Your task to perform on an android device: see tabs open on other devices in the chrome app Image 0: 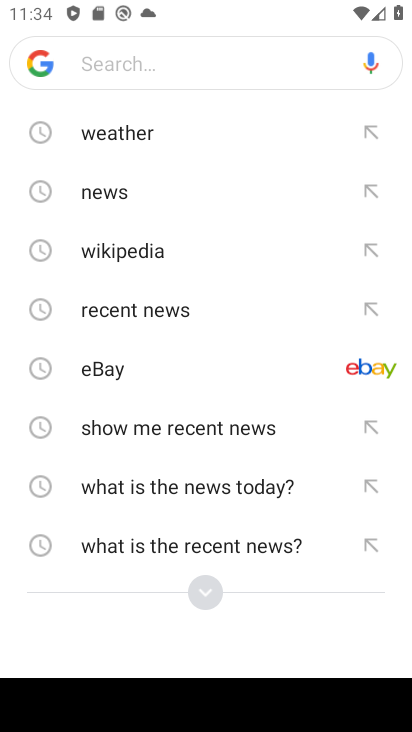
Step 0: press home button
Your task to perform on an android device: see tabs open on other devices in the chrome app Image 1: 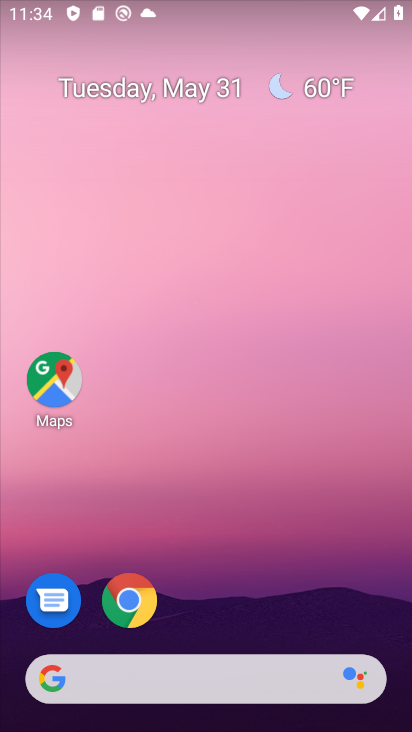
Step 1: drag from (338, 620) to (342, 90)
Your task to perform on an android device: see tabs open on other devices in the chrome app Image 2: 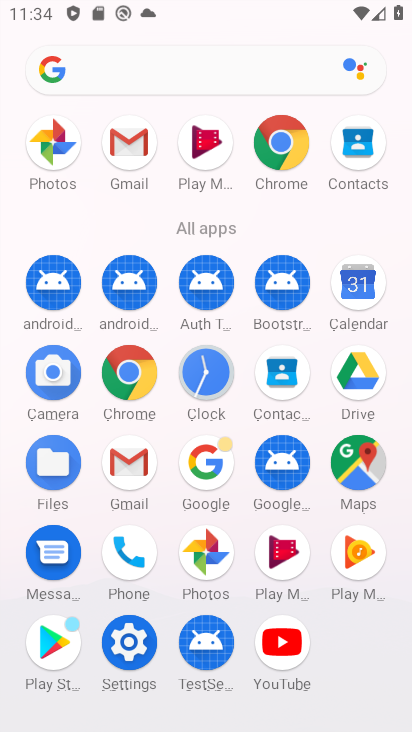
Step 2: click (143, 377)
Your task to perform on an android device: see tabs open on other devices in the chrome app Image 3: 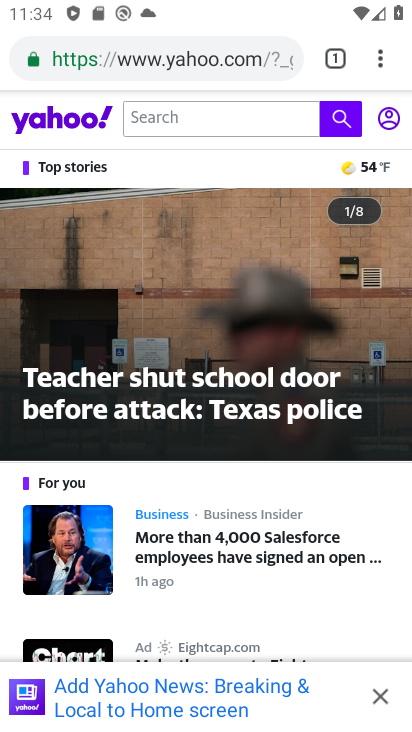
Step 3: click (381, 63)
Your task to perform on an android device: see tabs open on other devices in the chrome app Image 4: 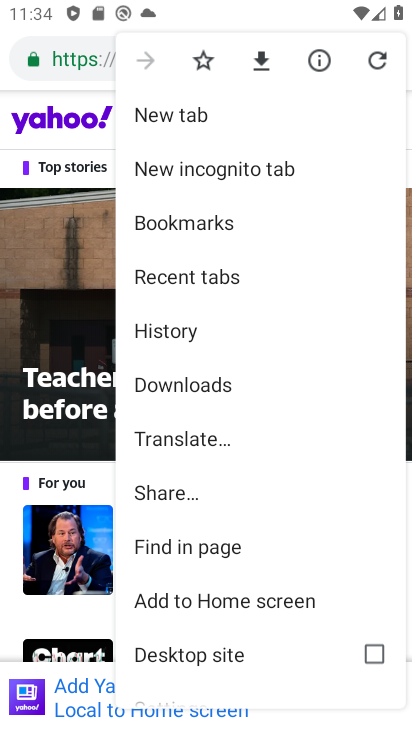
Step 4: click (248, 282)
Your task to perform on an android device: see tabs open on other devices in the chrome app Image 5: 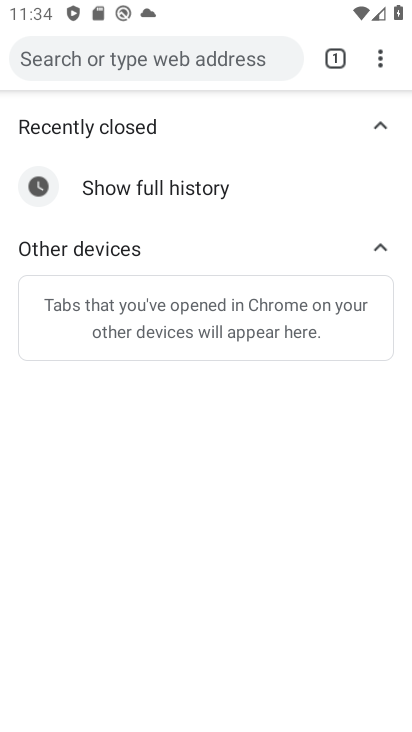
Step 5: click (340, 57)
Your task to perform on an android device: see tabs open on other devices in the chrome app Image 6: 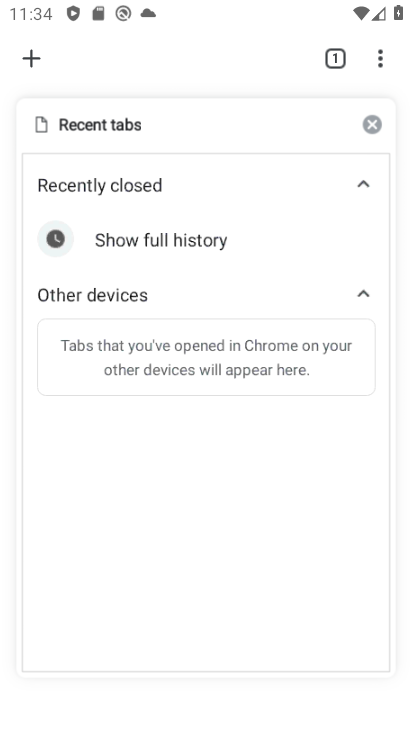
Step 6: task complete